Your task to perform on an android device: change the upload size in google photos Image 0: 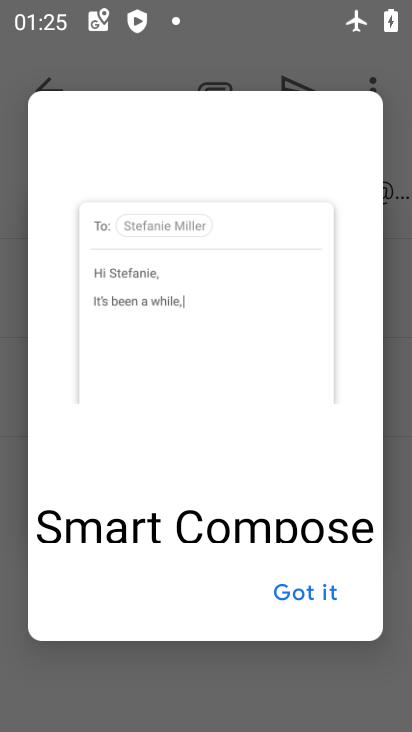
Step 0: press home button
Your task to perform on an android device: change the upload size in google photos Image 1: 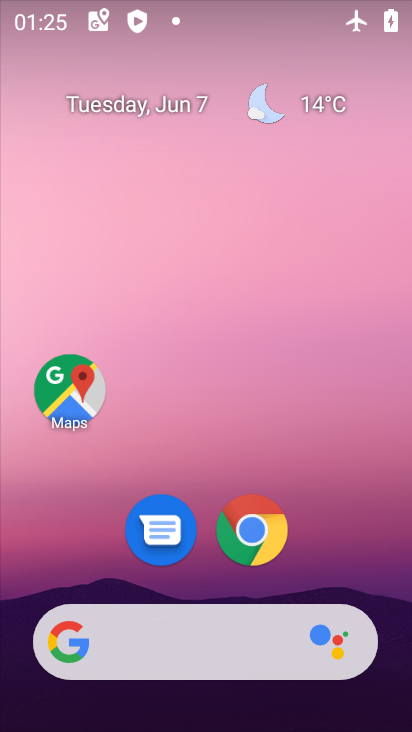
Step 1: drag from (324, 574) to (293, 319)
Your task to perform on an android device: change the upload size in google photos Image 2: 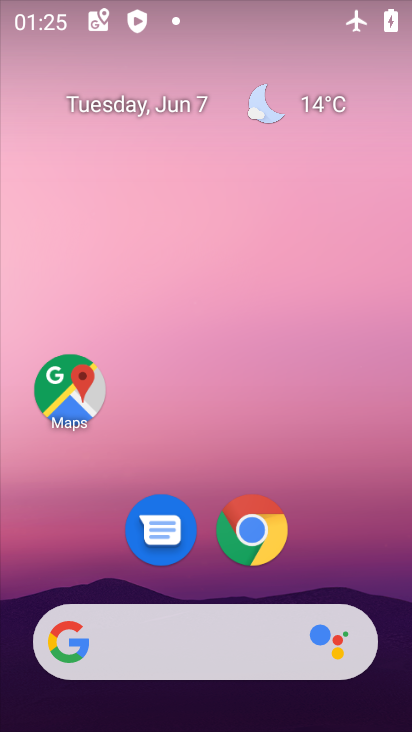
Step 2: drag from (210, 510) to (209, 252)
Your task to perform on an android device: change the upload size in google photos Image 3: 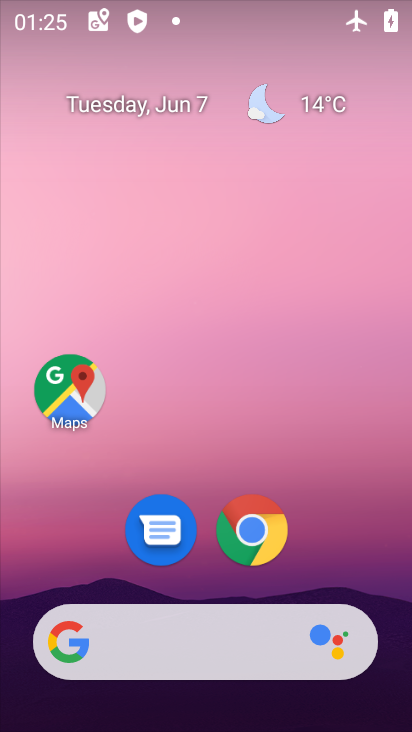
Step 3: drag from (210, 552) to (189, 233)
Your task to perform on an android device: change the upload size in google photos Image 4: 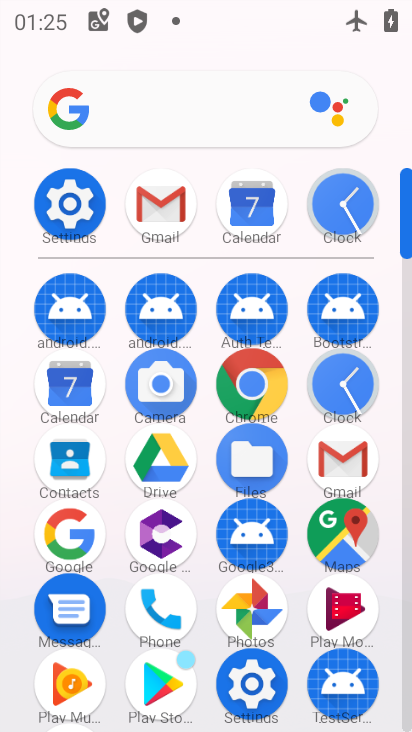
Step 4: click (251, 604)
Your task to perform on an android device: change the upload size in google photos Image 5: 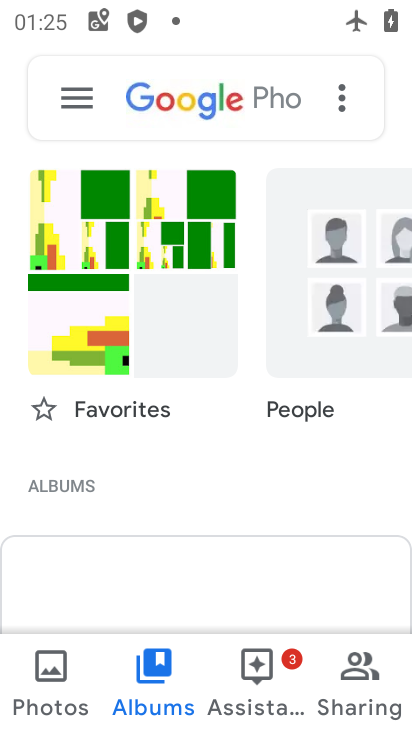
Step 5: click (70, 92)
Your task to perform on an android device: change the upload size in google photos Image 6: 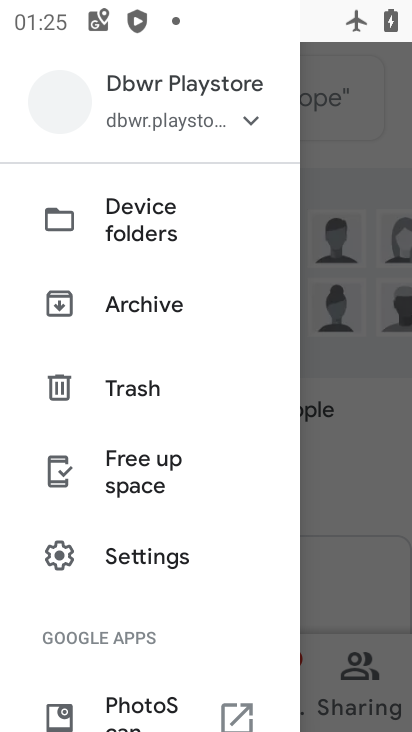
Step 6: click (138, 549)
Your task to perform on an android device: change the upload size in google photos Image 7: 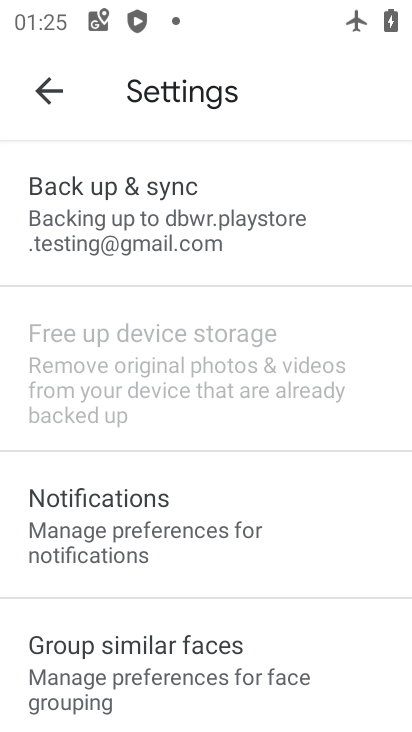
Step 7: click (115, 200)
Your task to perform on an android device: change the upload size in google photos Image 8: 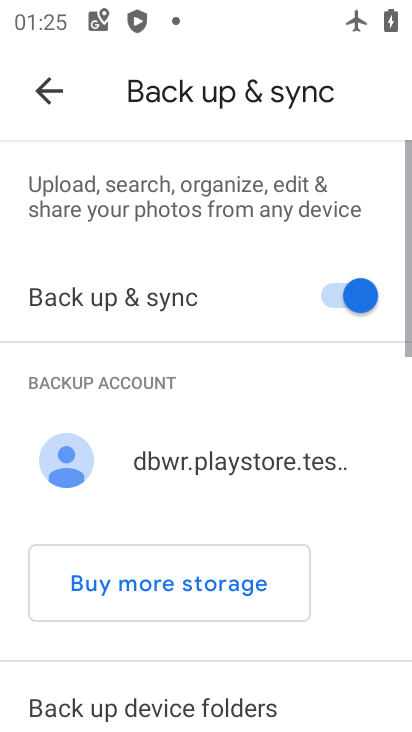
Step 8: drag from (202, 646) to (200, 276)
Your task to perform on an android device: change the upload size in google photos Image 9: 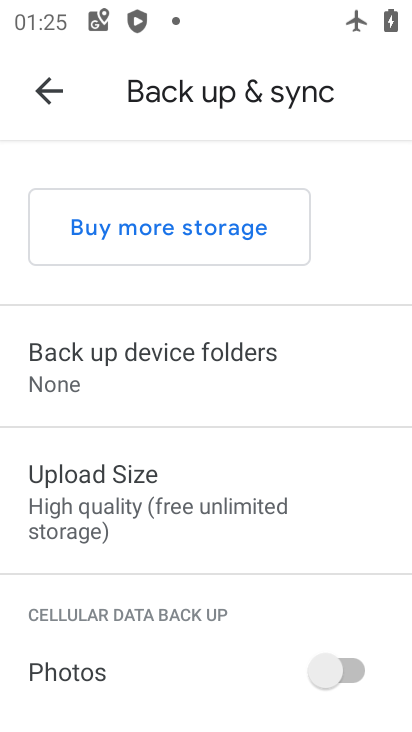
Step 9: click (130, 520)
Your task to perform on an android device: change the upload size in google photos Image 10: 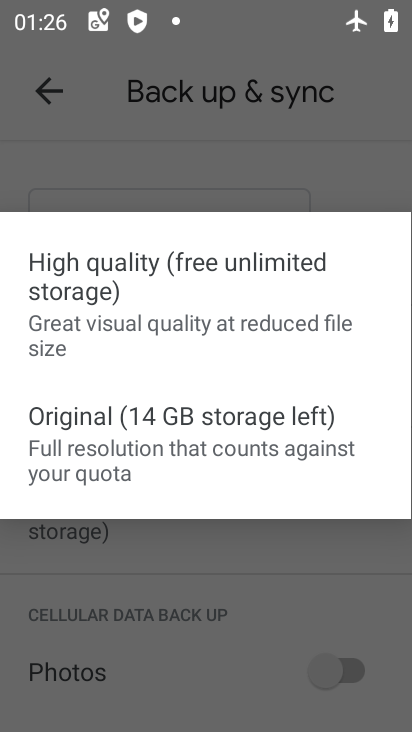
Step 10: click (117, 443)
Your task to perform on an android device: change the upload size in google photos Image 11: 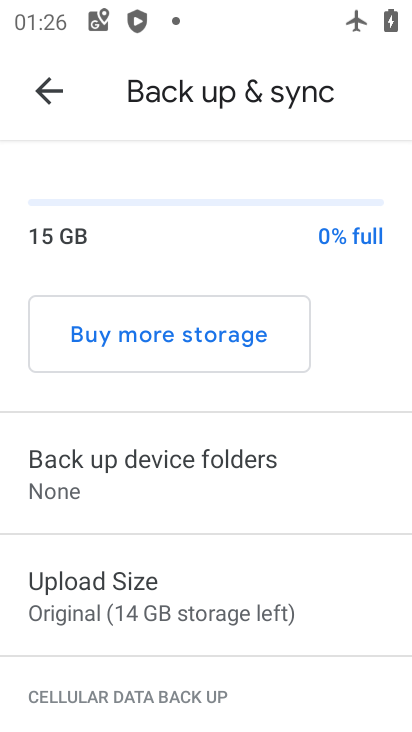
Step 11: task complete